Your task to perform on an android device: toggle wifi Image 0: 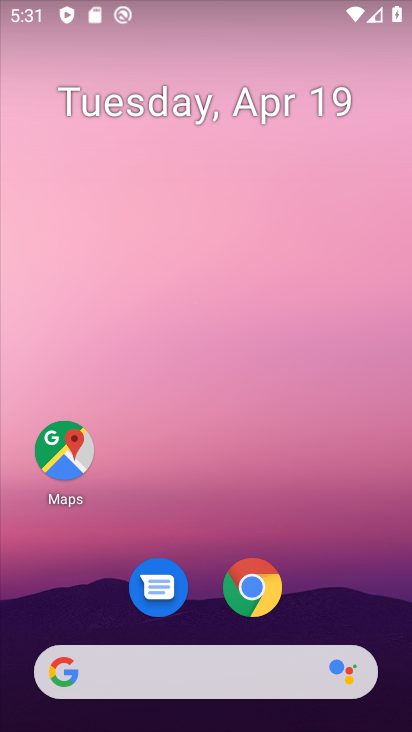
Step 0: drag from (158, 20) to (216, 629)
Your task to perform on an android device: toggle wifi Image 1: 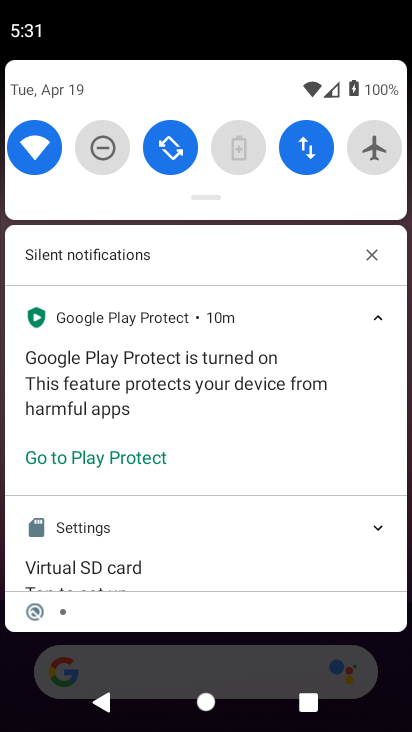
Step 1: click (38, 149)
Your task to perform on an android device: toggle wifi Image 2: 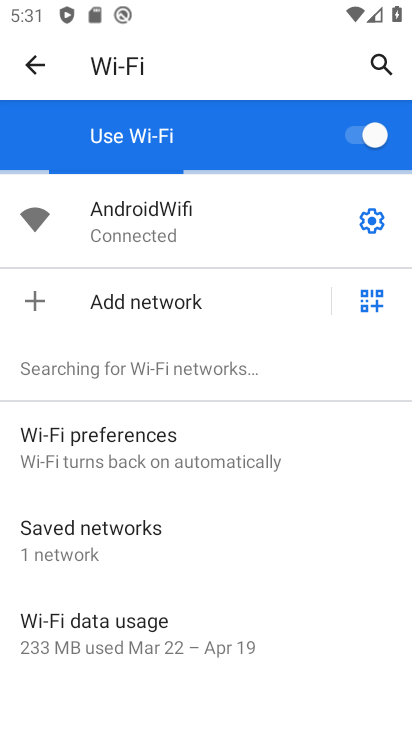
Step 2: click (352, 137)
Your task to perform on an android device: toggle wifi Image 3: 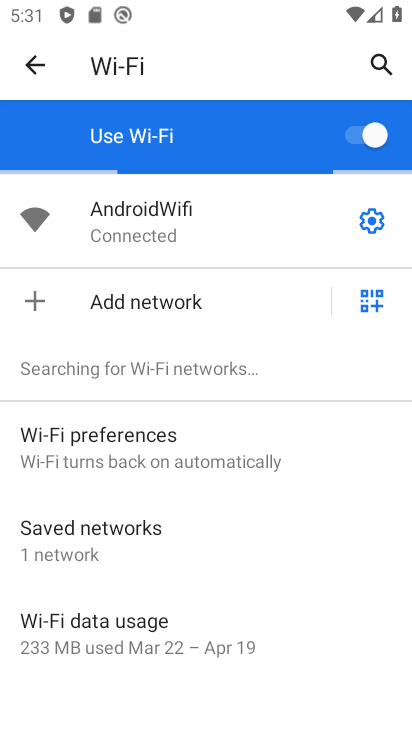
Step 3: click (352, 137)
Your task to perform on an android device: toggle wifi Image 4: 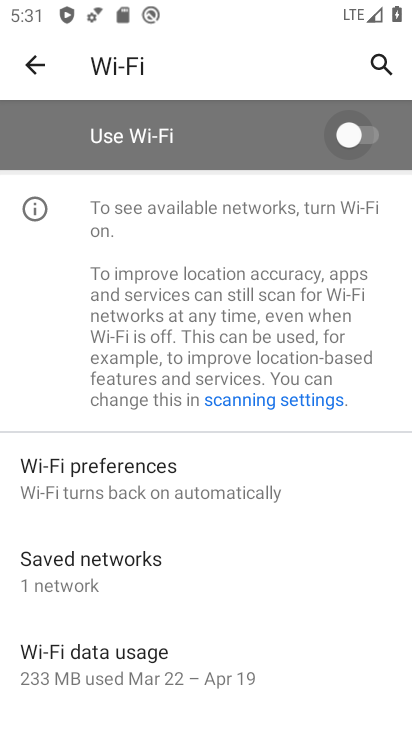
Step 4: click (352, 137)
Your task to perform on an android device: toggle wifi Image 5: 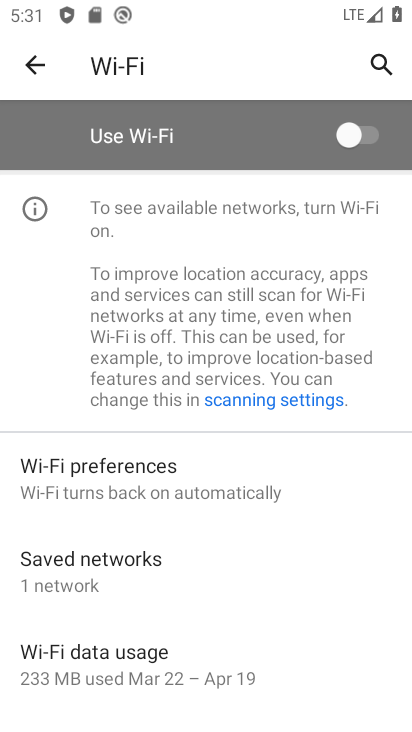
Step 5: task complete